Your task to perform on an android device: turn off smart reply in the gmail app Image 0: 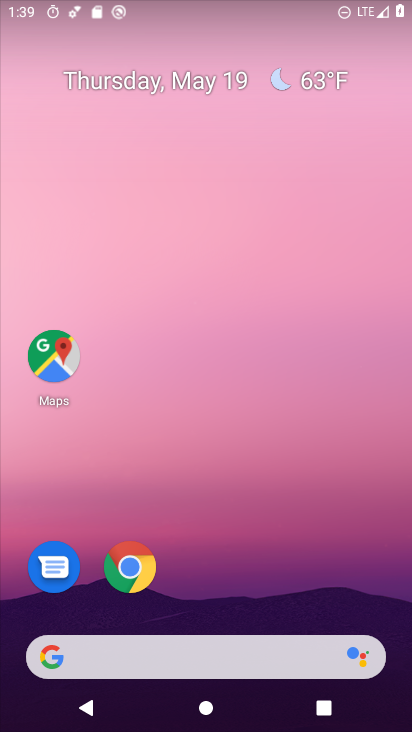
Step 0: press home button
Your task to perform on an android device: turn off smart reply in the gmail app Image 1: 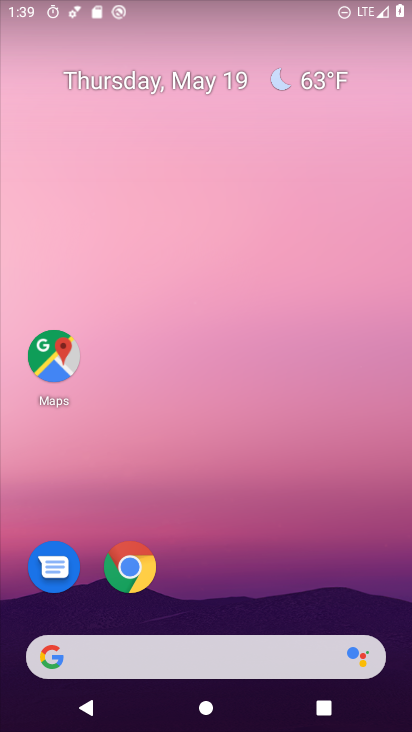
Step 1: drag from (135, 647) to (326, 66)
Your task to perform on an android device: turn off smart reply in the gmail app Image 2: 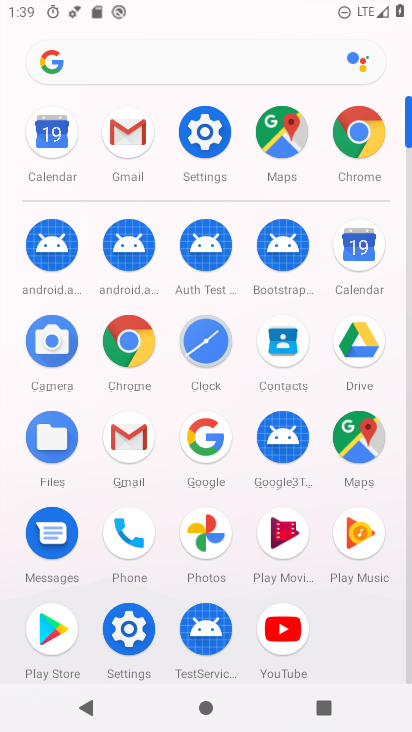
Step 2: click (130, 135)
Your task to perform on an android device: turn off smart reply in the gmail app Image 3: 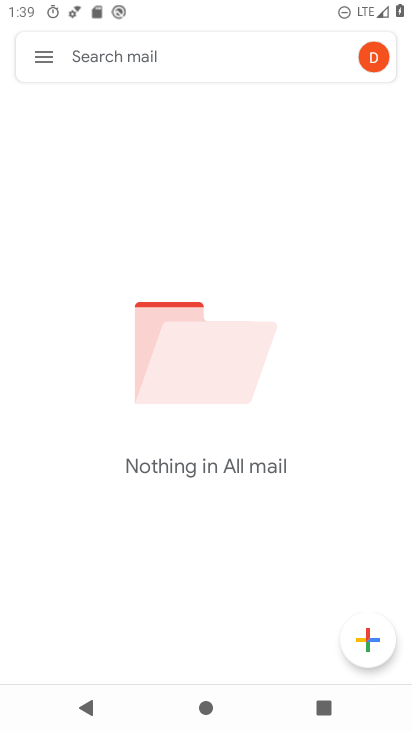
Step 3: click (48, 53)
Your task to perform on an android device: turn off smart reply in the gmail app Image 4: 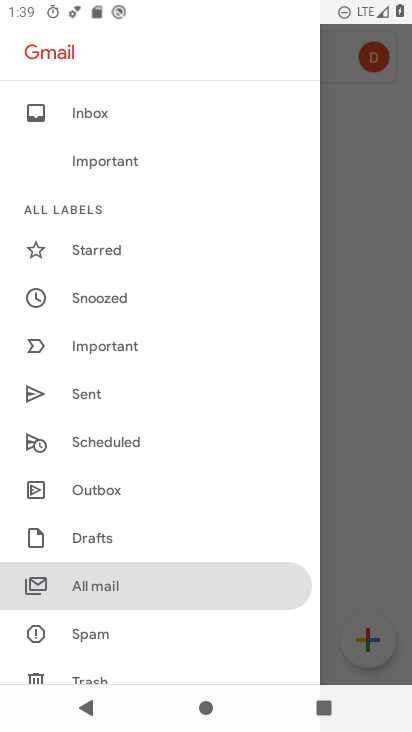
Step 4: drag from (197, 542) to (326, 62)
Your task to perform on an android device: turn off smart reply in the gmail app Image 5: 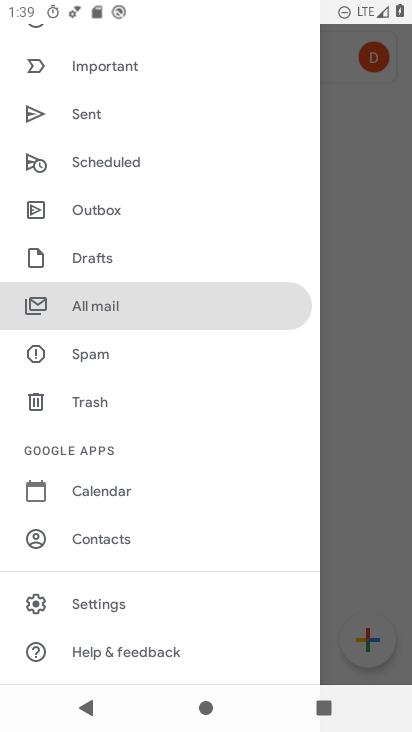
Step 5: click (86, 602)
Your task to perform on an android device: turn off smart reply in the gmail app Image 6: 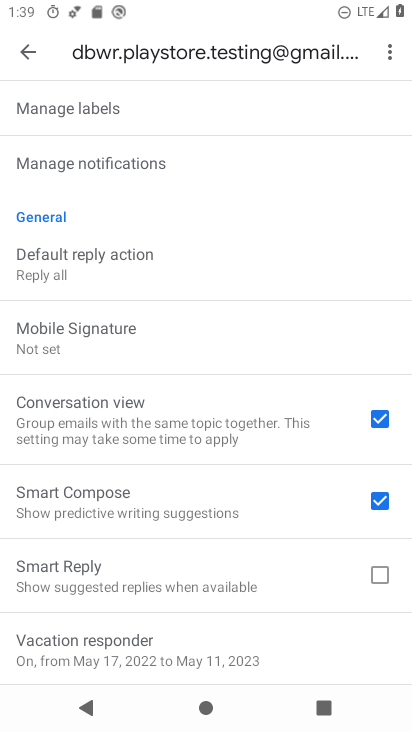
Step 6: task complete